Your task to perform on an android device: check google app version Image 0: 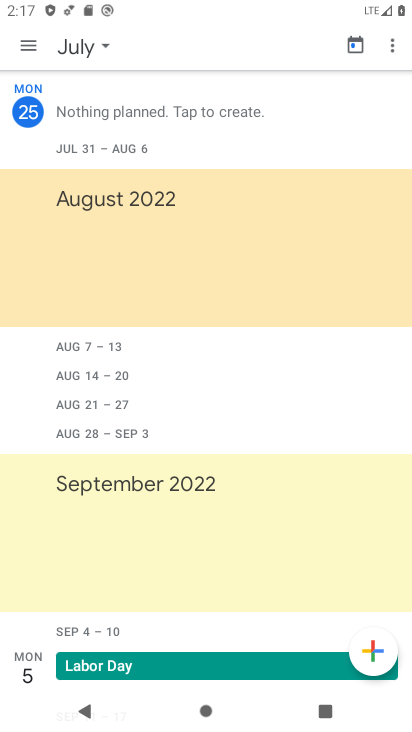
Step 0: press home button
Your task to perform on an android device: check google app version Image 1: 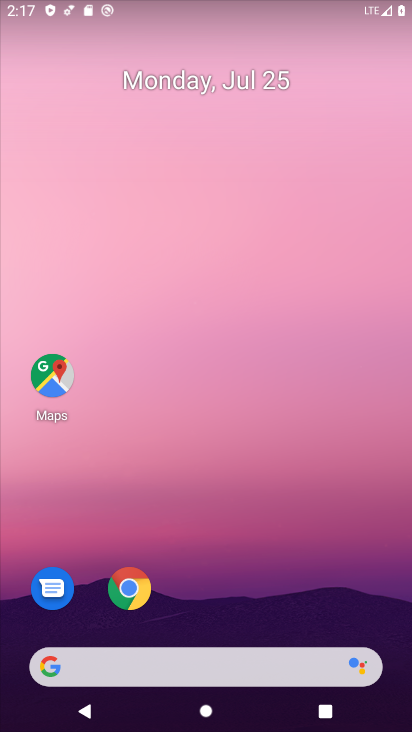
Step 1: click (47, 660)
Your task to perform on an android device: check google app version Image 2: 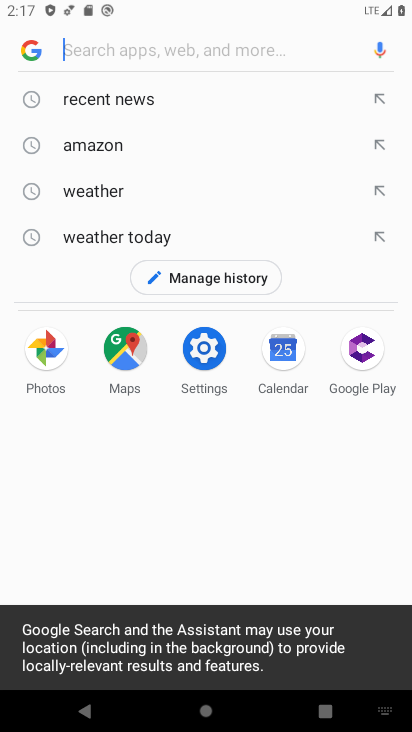
Step 2: click (34, 43)
Your task to perform on an android device: check google app version Image 3: 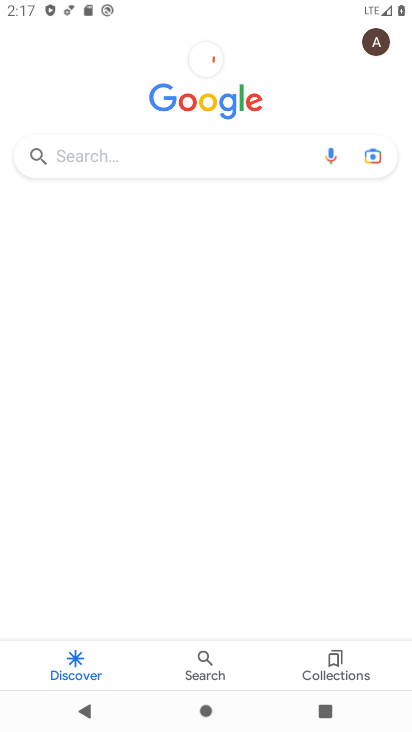
Step 3: click (375, 37)
Your task to perform on an android device: check google app version Image 4: 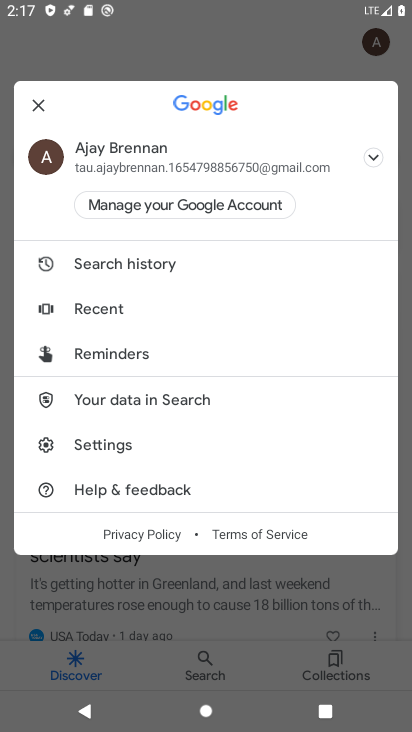
Step 4: click (108, 454)
Your task to perform on an android device: check google app version Image 5: 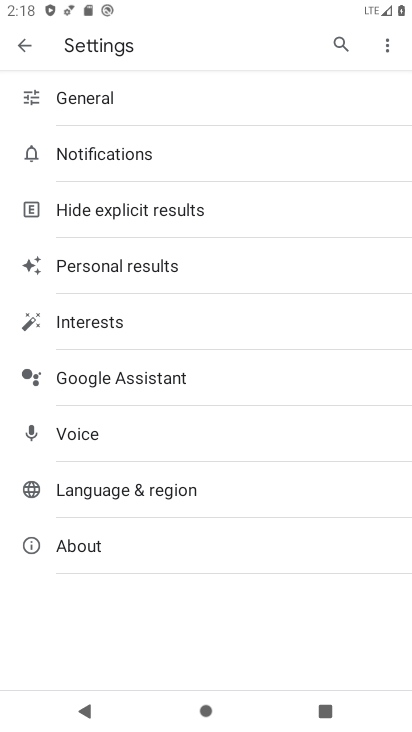
Step 5: click (73, 539)
Your task to perform on an android device: check google app version Image 6: 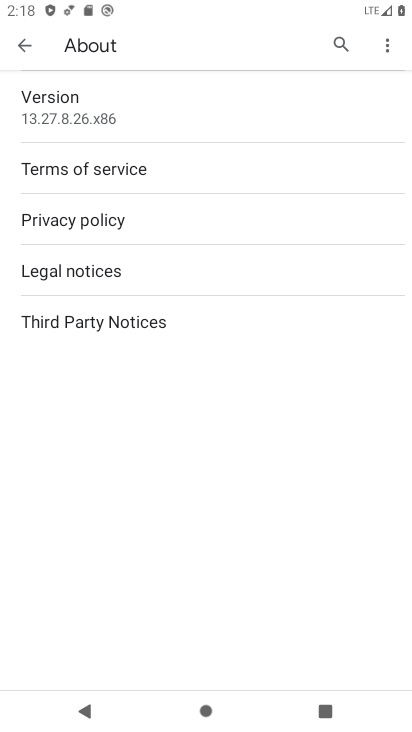
Step 6: task complete